Your task to perform on an android device: set default search engine in the chrome app Image 0: 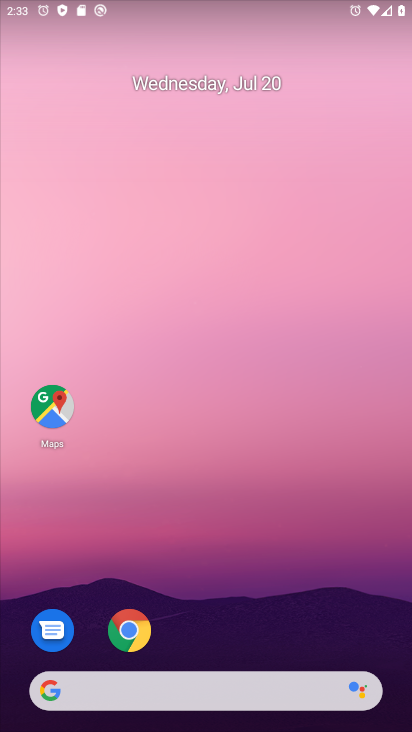
Step 0: click (121, 629)
Your task to perform on an android device: set default search engine in the chrome app Image 1: 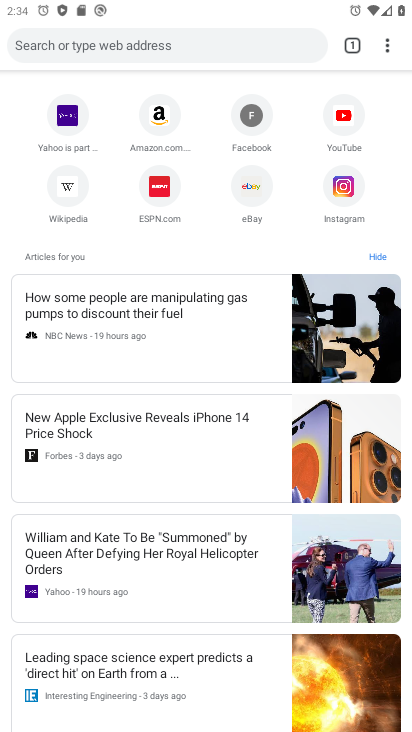
Step 1: click (390, 40)
Your task to perform on an android device: set default search engine in the chrome app Image 2: 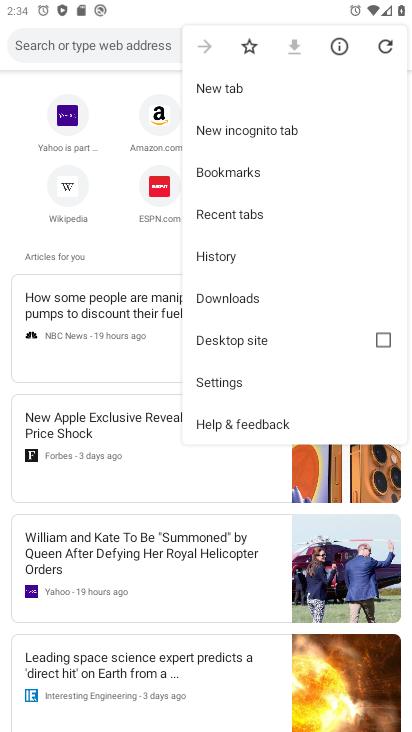
Step 2: click (237, 381)
Your task to perform on an android device: set default search engine in the chrome app Image 3: 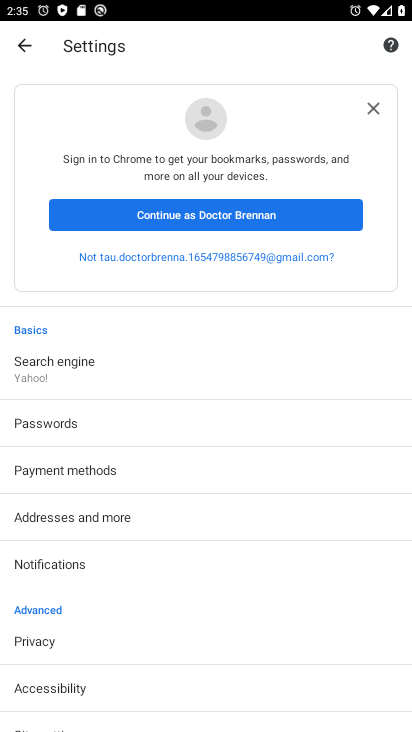
Step 3: click (109, 375)
Your task to perform on an android device: set default search engine in the chrome app Image 4: 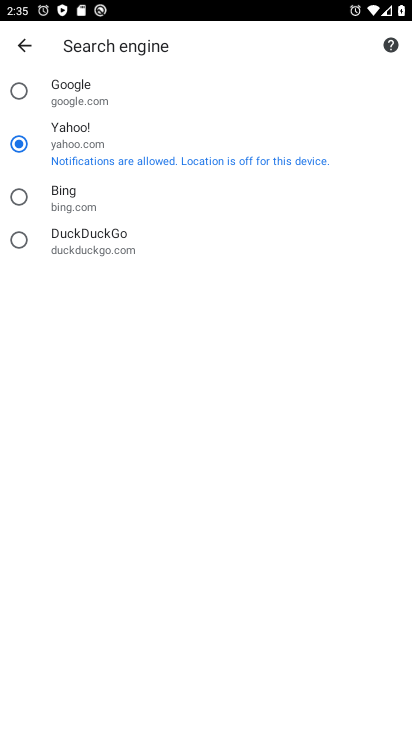
Step 4: click (14, 94)
Your task to perform on an android device: set default search engine in the chrome app Image 5: 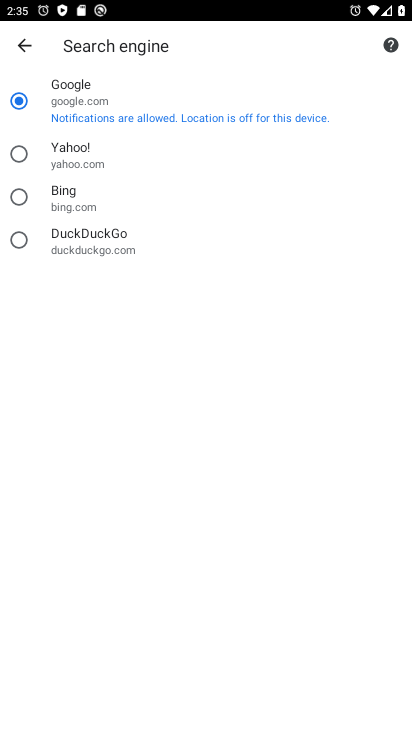
Step 5: task complete